Your task to perform on an android device: What's the weather going to be tomorrow? Image 0: 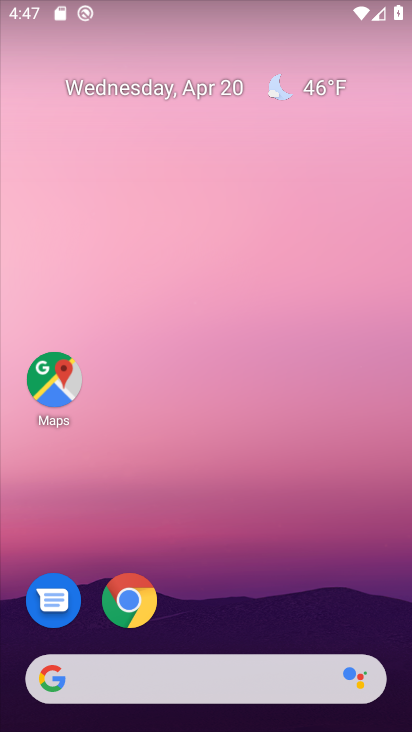
Step 0: click (197, 46)
Your task to perform on an android device: What's the weather going to be tomorrow? Image 1: 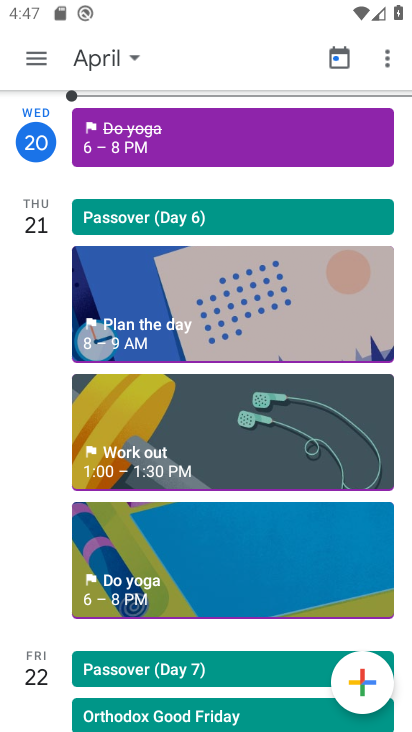
Step 1: press home button
Your task to perform on an android device: What's the weather going to be tomorrow? Image 2: 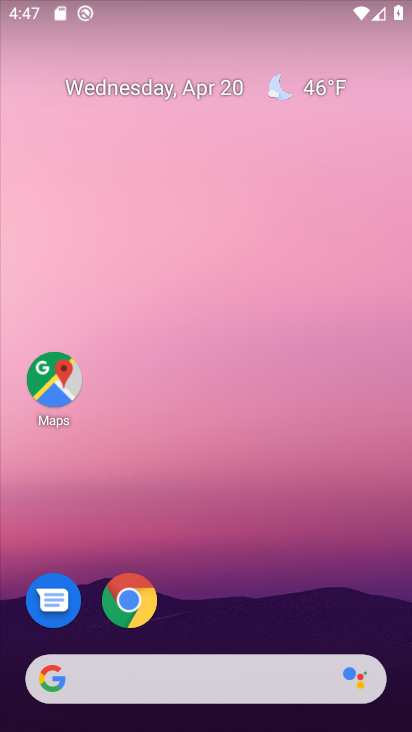
Step 2: click (318, 78)
Your task to perform on an android device: What's the weather going to be tomorrow? Image 3: 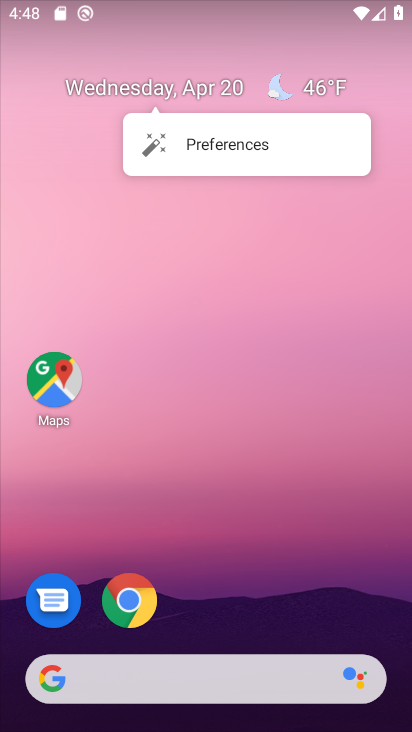
Step 3: click (316, 85)
Your task to perform on an android device: What's the weather going to be tomorrow? Image 4: 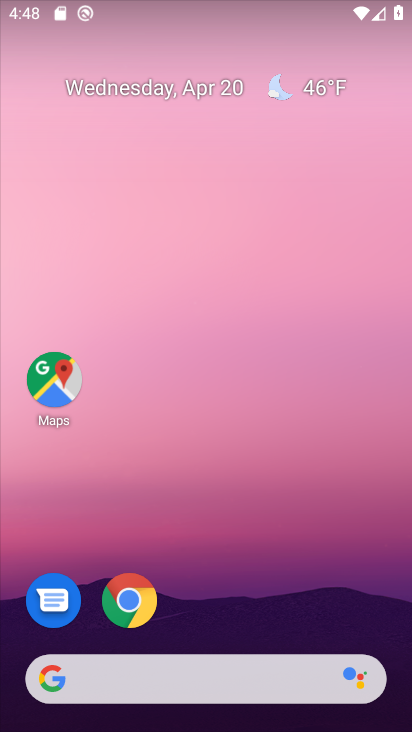
Step 4: click (316, 85)
Your task to perform on an android device: What's the weather going to be tomorrow? Image 5: 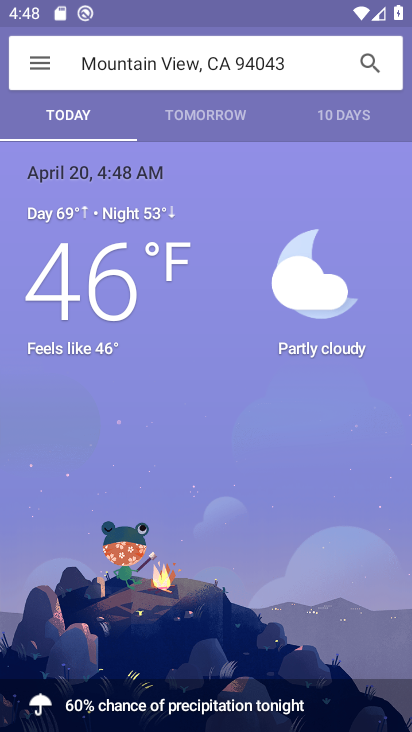
Step 5: click (213, 126)
Your task to perform on an android device: What's the weather going to be tomorrow? Image 6: 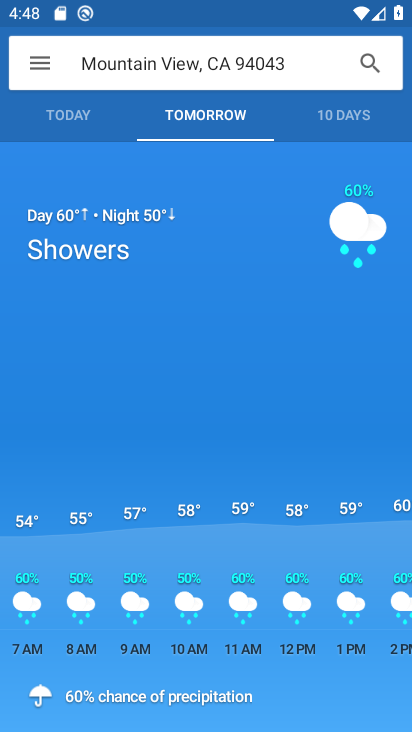
Step 6: task complete